Your task to perform on an android device: change text size in settings app Image 0: 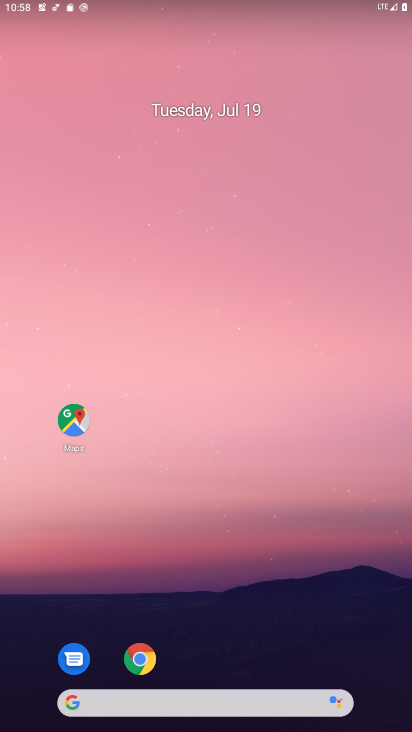
Step 0: click (298, 186)
Your task to perform on an android device: change text size in settings app Image 1: 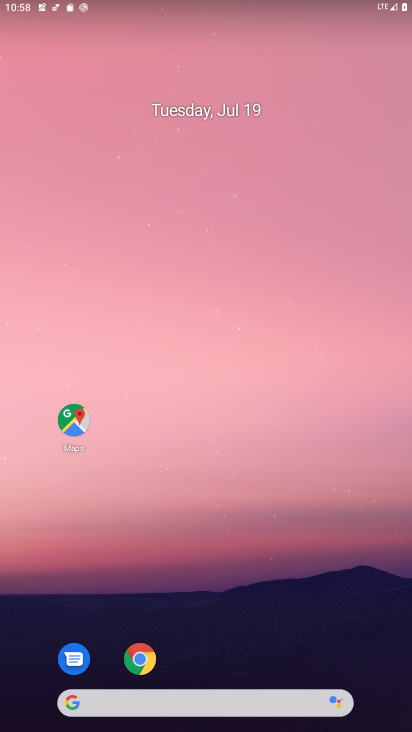
Step 1: drag from (236, 391) to (295, 178)
Your task to perform on an android device: change text size in settings app Image 2: 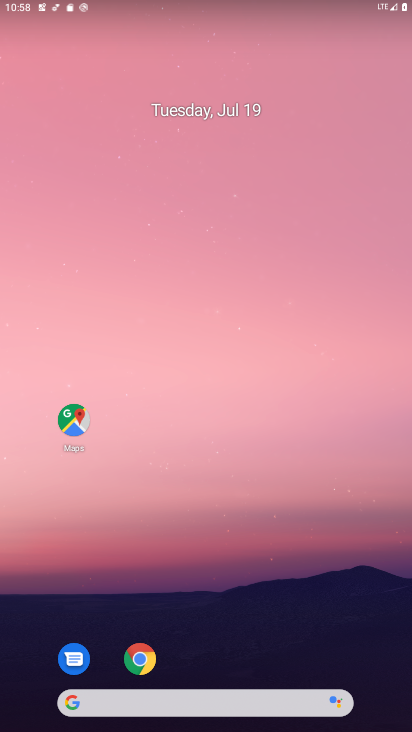
Step 2: drag from (215, 519) to (397, 0)
Your task to perform on an android device: change text size in settings app Image 3: 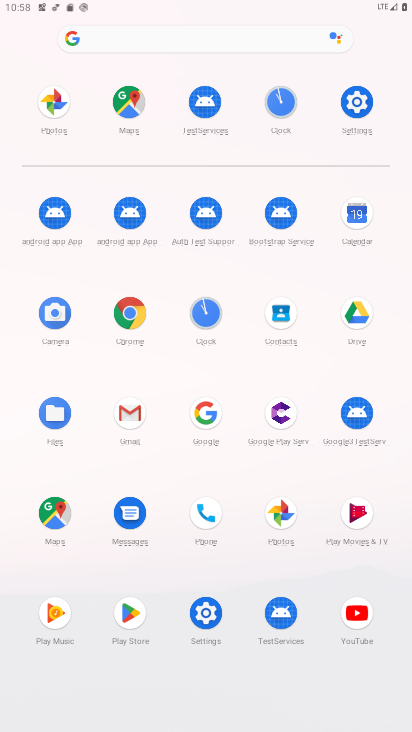
Step 3: click (356, 98)
Your task to perform on an android device: change text size in settings app Image 4: 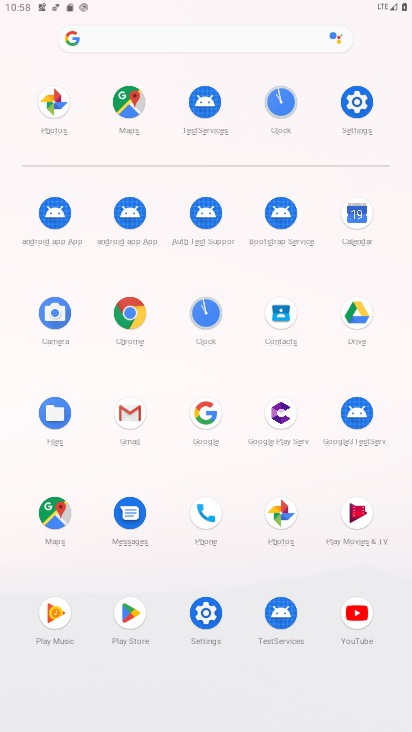
Step 4: click (354, 96)
Your task to perform on an android device: change text size in settings app Image 5: 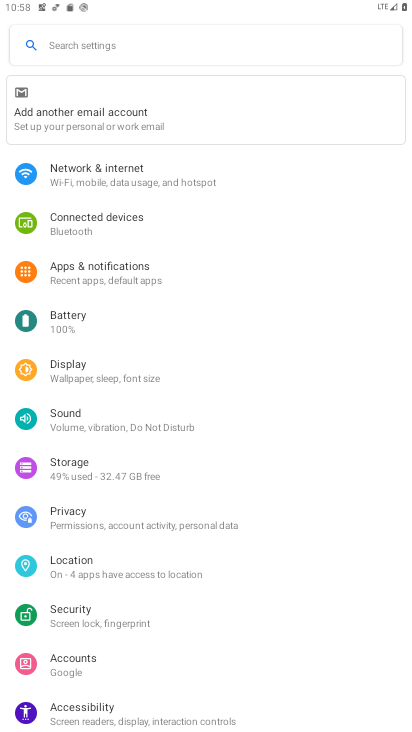
Step 5: drag from (235, 361) to (281, 130)
Your task to perform on an android device: change text size in settings app Image 6: 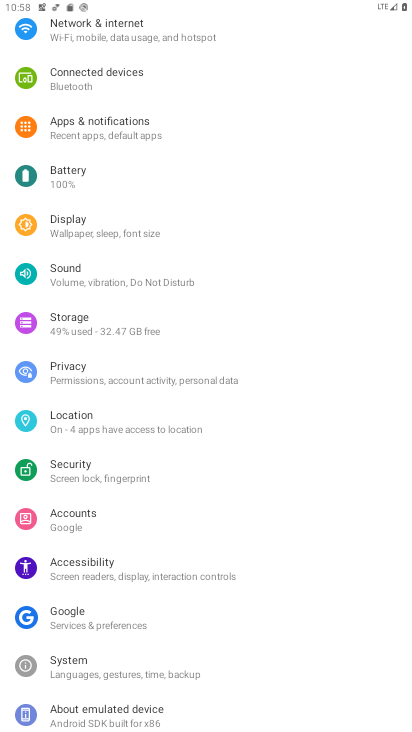
Step 6: click (98, 223)
Your task to perform on an android device: change text size in settings app Image 7: 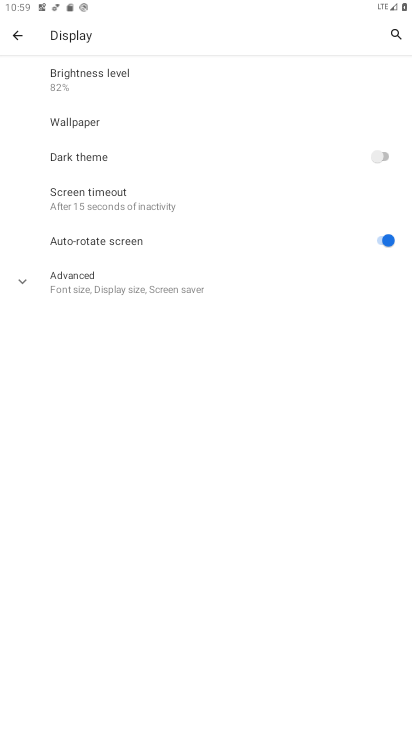
Step 7: click (103, 285)
Your task to perform on an android device: change text size in settings app Image 8: 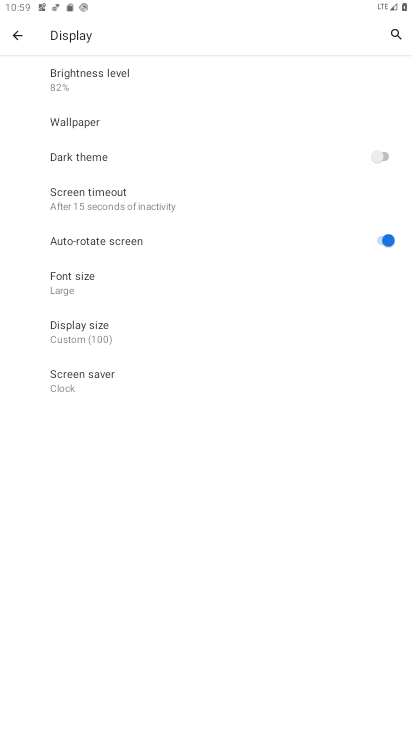
Step 8: click (96, 288)
Your task to perform on an android device: change text size in settings app Image 9: 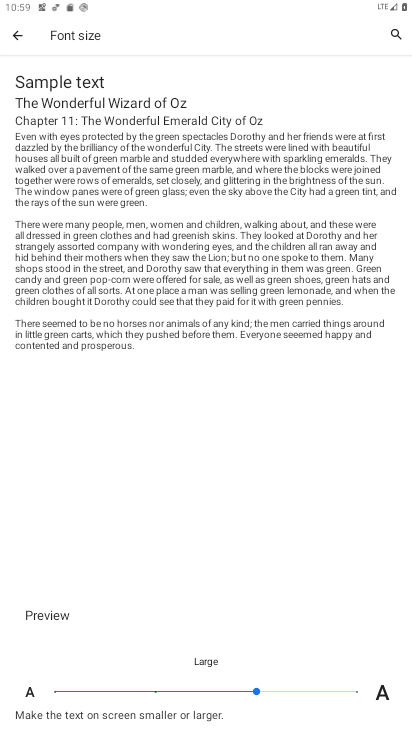
Step 9: click (337, 687)
Your task to perform on an android device: change text size in settings app Image 10: 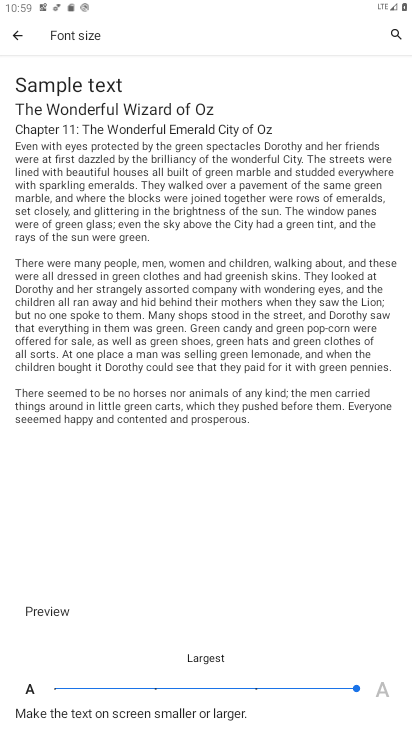
Step 10: task complete